Your task to perform on an android device: open sync settings in chrome Image 0: 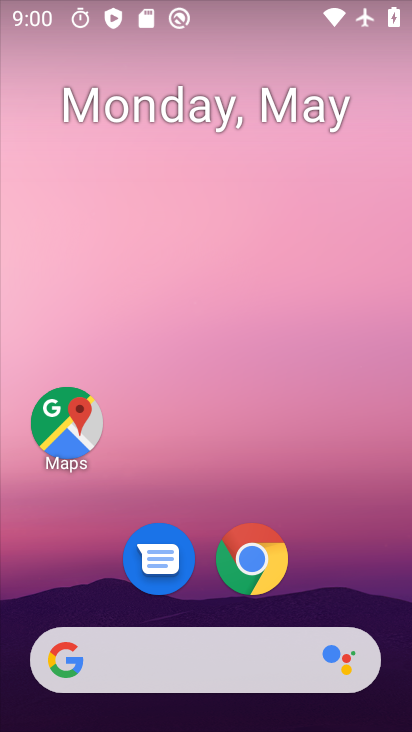
Step 0: click (247, 559)
Your task to perform on an android device: open sync settings in chrome Image 1: 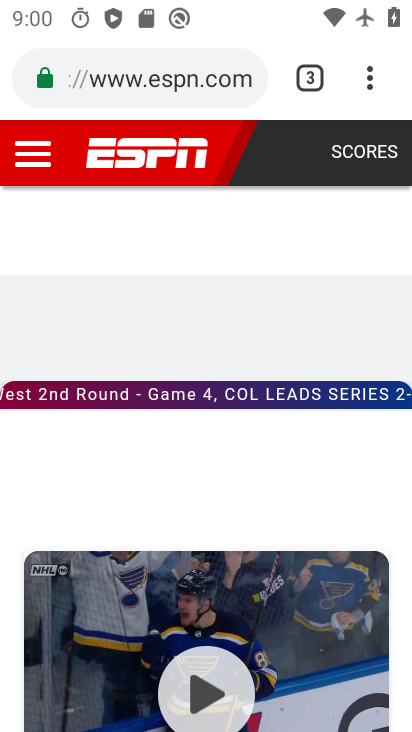
Step 1: click (370, 86)
Your task to perform on an android device: open sync settings in chrome Image 2: 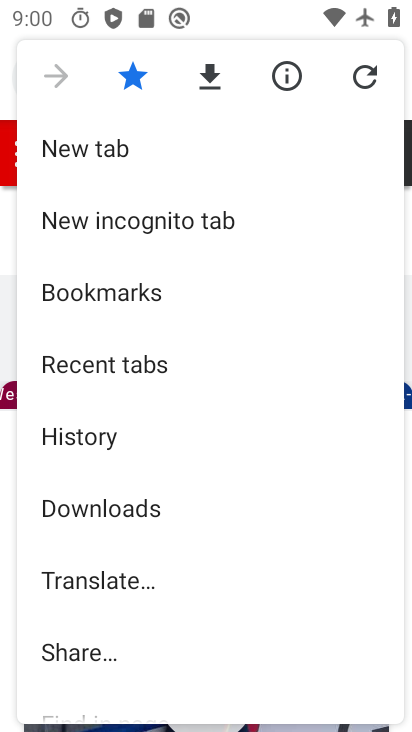
Step 2: drag from (144, 674) to (150, 264)
Your task to perform on an android device: open sync settings in chrome Image 3: 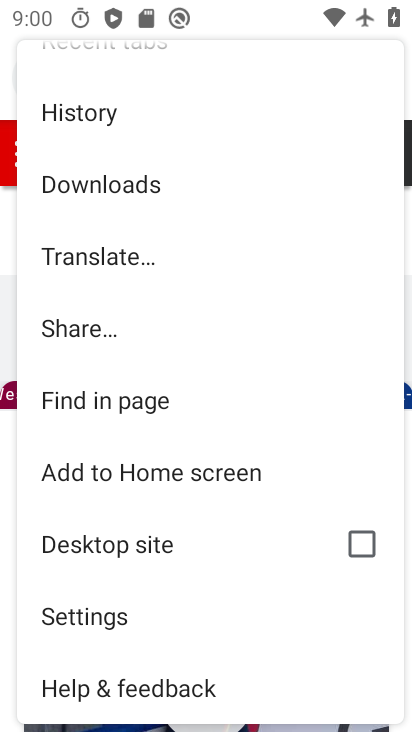
Step 3: click (96, 629)
Your task to perform on an android device: open sync settings in chrome Image 4: 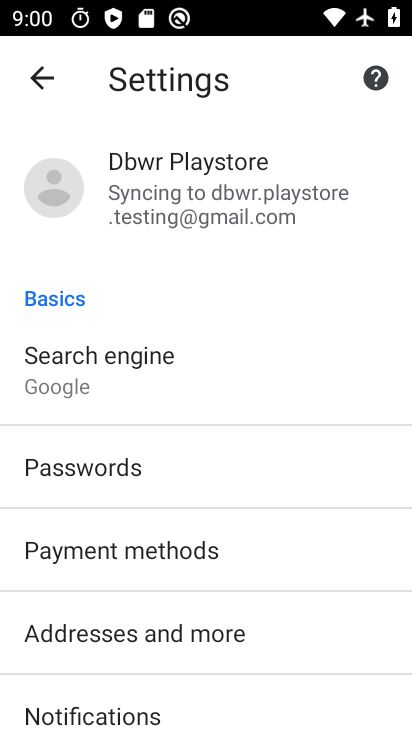
Step 4: click (159, 203)
Your task to perform on an android device: open sync settings in chrome Image 5: 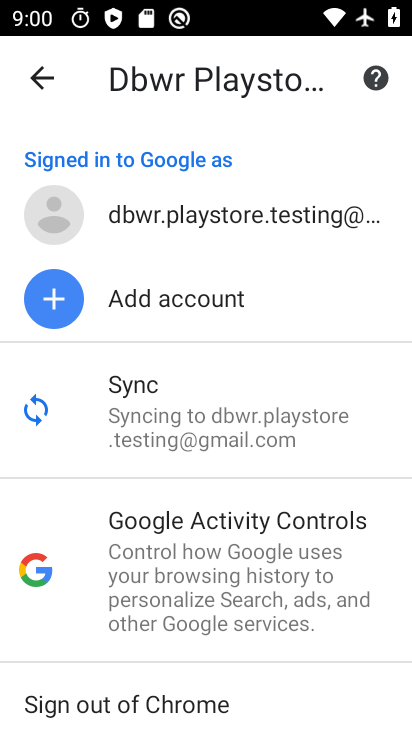
Step 5: click (162, 424)
Your task to perform on an android device: open sync settings in chrome Image 6: 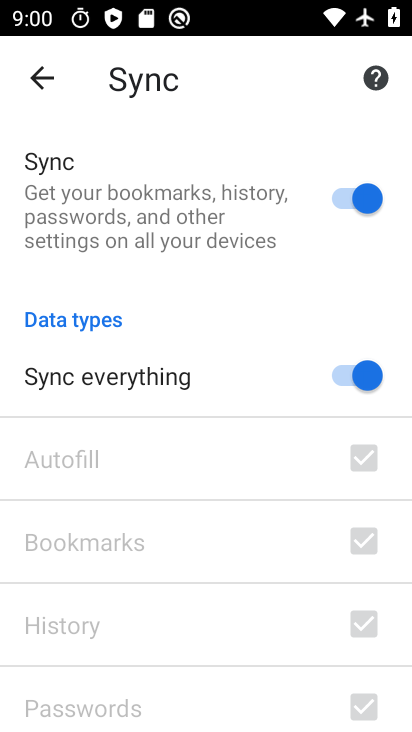
Step 6: task complete